Your task to perform on an android device: Open the calendar and show me this week's events Image 0: 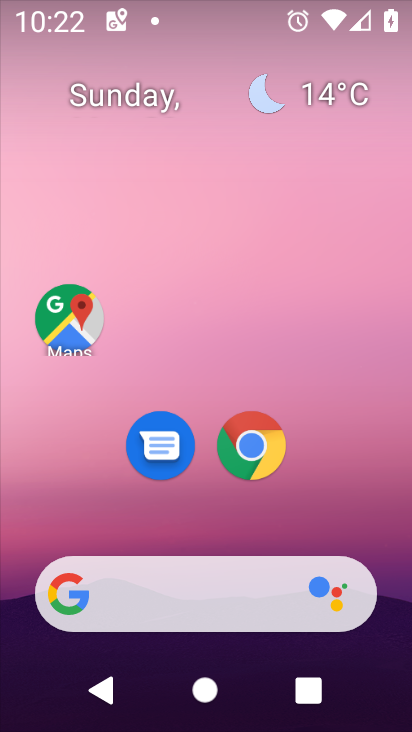
Step 0: drag from (219, 413) to (11, 47)
Your task to perform on an android device: Open the calendar and show me this week's events Image 1: 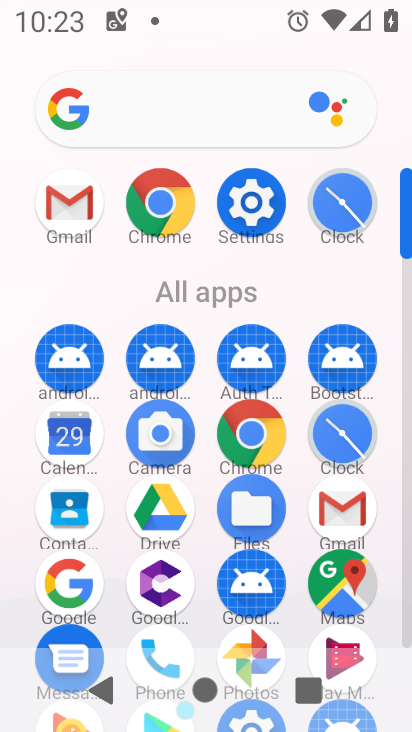
Step 1: drag from (197, 560) to (208, 279)
Your task to perform on an android device: Open the calendar and show me this week's events Image 2: 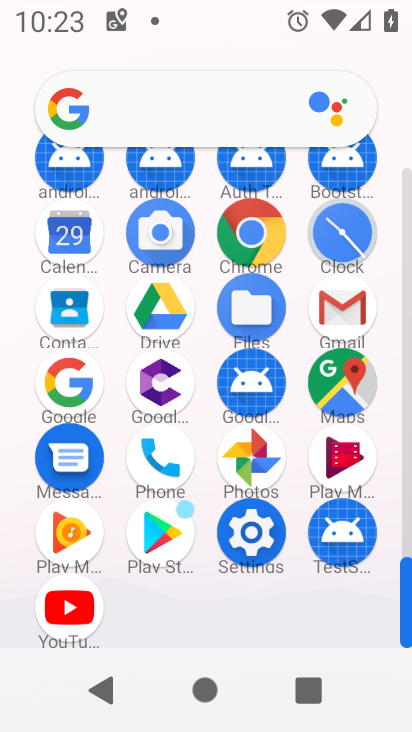
Step 2: click (60, 237)
Your task to perform on an android device: Open the calendar and show me this week's events Image 3: 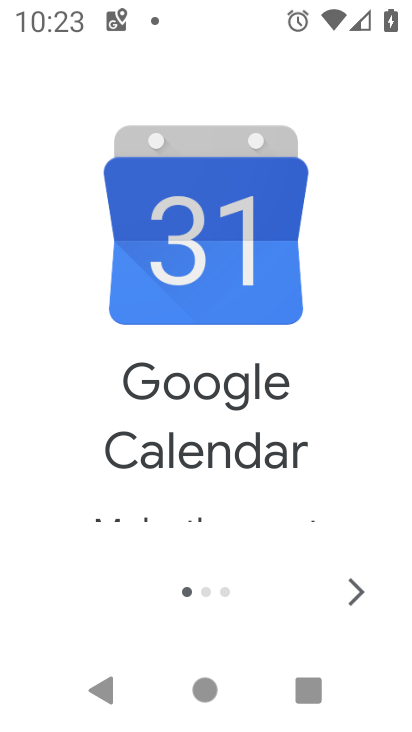
Step 3: click (343, 609)
Your task to perform on an android device: Open the calendar and show me this week's events Image 4: 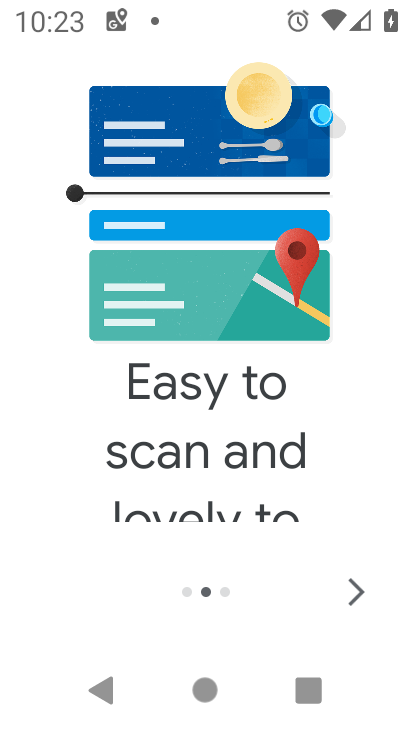
Step 4: drag from (213, 479) to (318, 66)
Your task to perform on an android device: Open the calendar and show me this week's events Image 5: 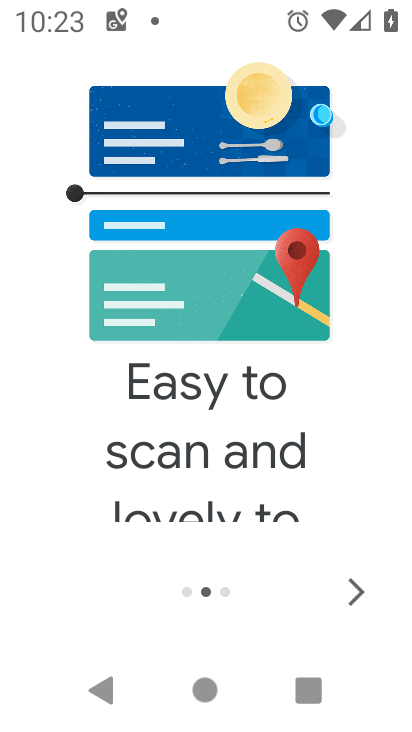
Step 5: drag from (195, 419) to (85, 5)
Your task to perform on an android device: Open the calendar and show me this week's events Image 6: 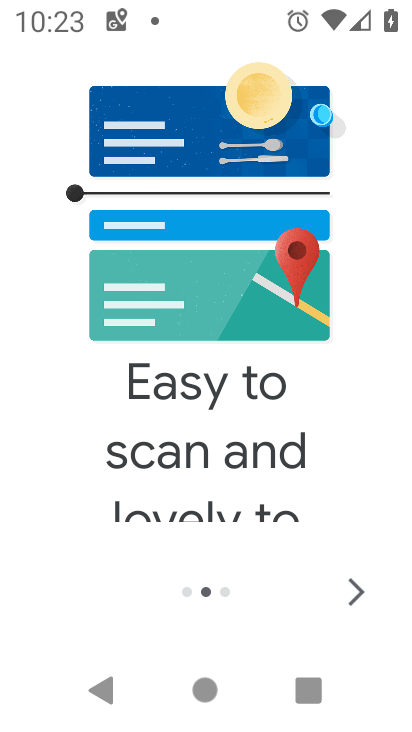
Step 6: drag from (217, 436) to (285, 137)
Your task to perform on an android device: Open the calendar and show me this week's events Image 7: 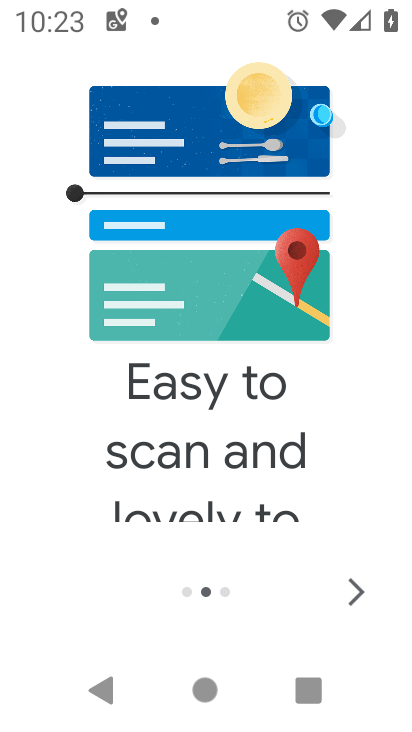
Step 7: click (350, 588)
Your task to perform on an android device: Open the calendar and show me this week's events Image 8: 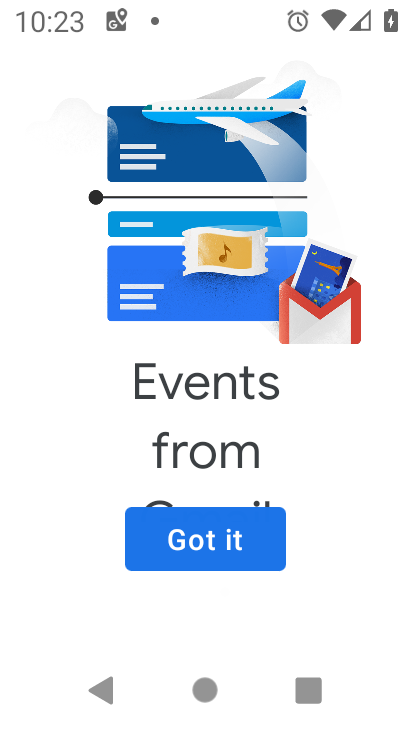
Step 8: drag from (272, 415) to (317, 36)
Your task to perform on an android device: Open the calendar and show me this week's events Image 9: 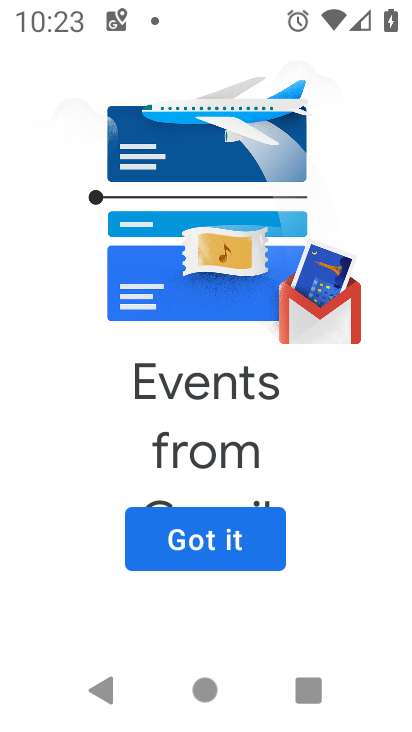
Step 9: click (211, 555)
Your task to perform on an android device: Open the calendar and show me this week's events Image 10: 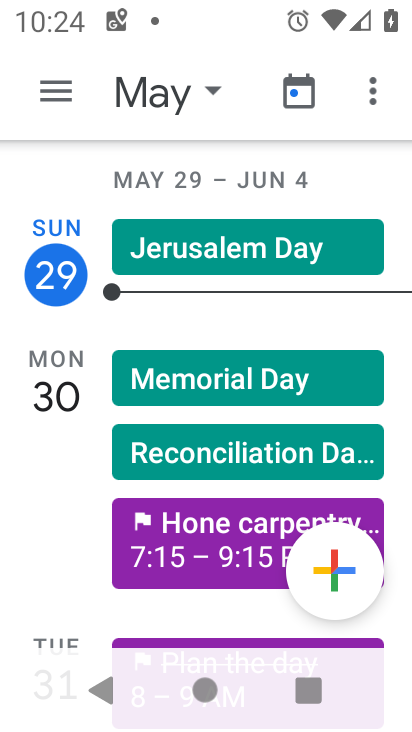
Step 10: click (186, 98)
Your task to perform on an android device: Open the calendar and show me this week's events Image 11: 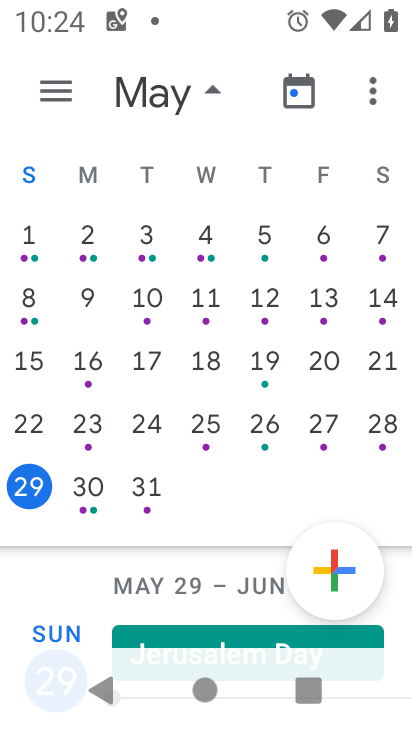
Step 11: click (113, 497)
Your task to perform on an android device: Open the calendar and show me this week's events Image 12: 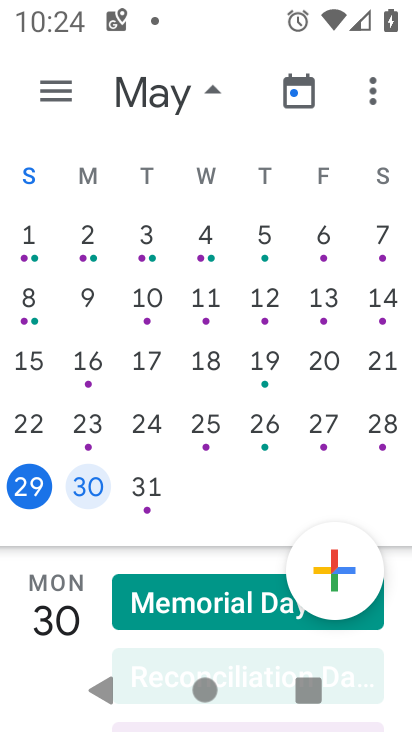
Step 12: task complete